Your task to perform on an android device: toggle pop-ups in chrome Image 0: 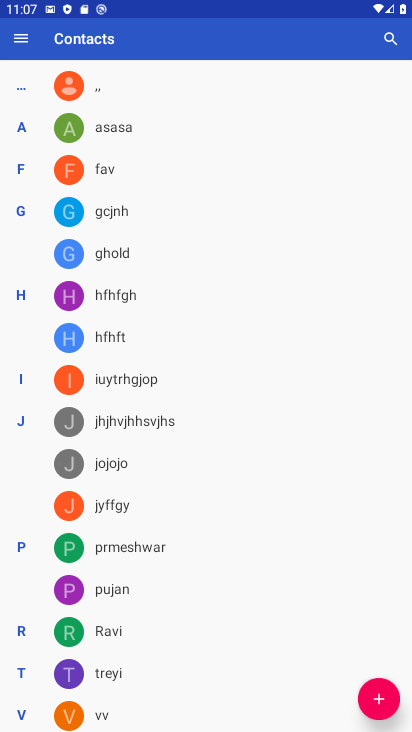
Step 0: press home button
Your task to perform on an android device: toggle pop-ups in chrome Image 1: 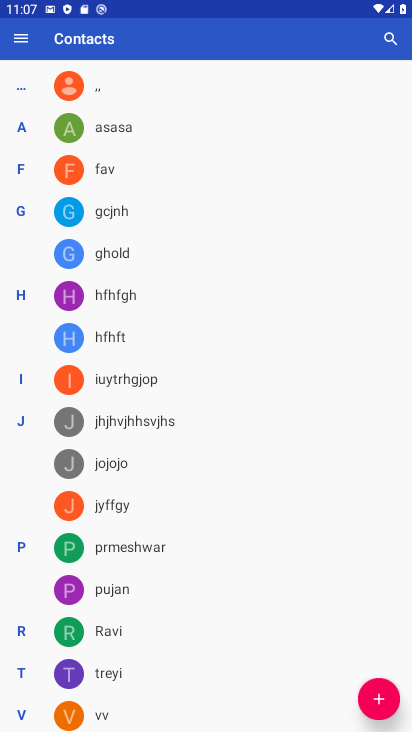
Step 1: press home button
Your task to perform on an android device: toggle pop-ups in chrome Image 2: 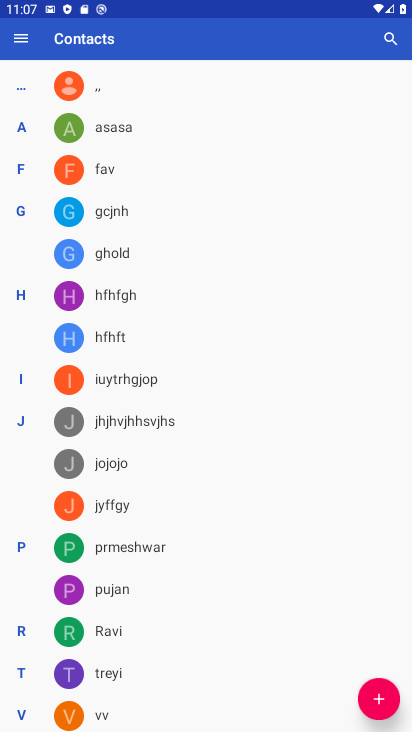
Step 2: click (297, 276)
Your task to perform on an android device: toggle pop-ups in chrome Image 3: 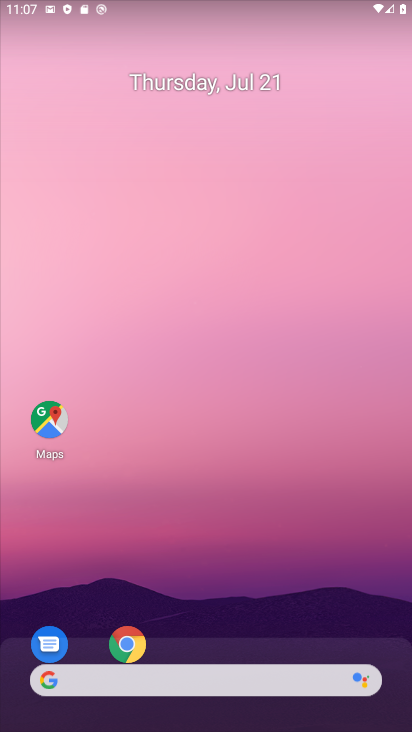
Step 3: drag from (195, 468) to (230, 342)
Your task to perform on an android device: toggle pop-ups in chrome Image 4: 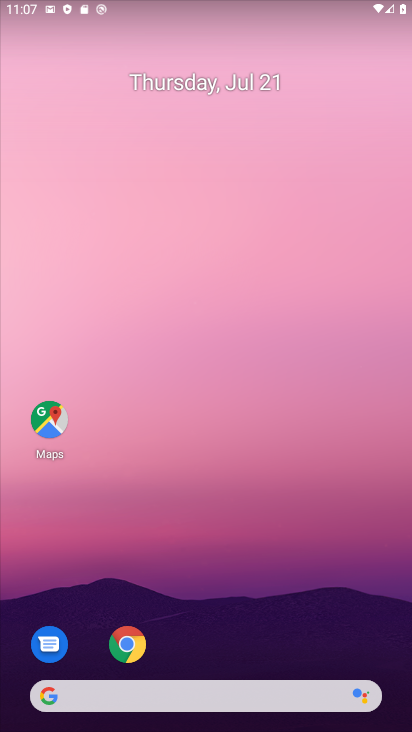
Step 4: press home button
Your task to perform on an android device: toggle pop-ups in chrome Image 5: 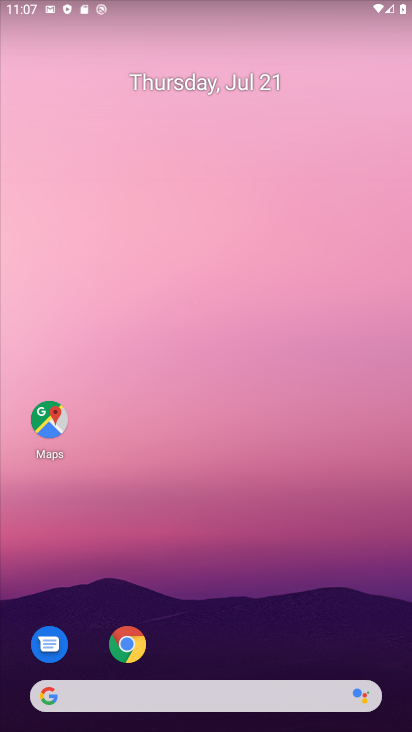
Step 5: drag from (221, 464) to (272, 252)
Your task to perform on an android device: toggle pop-ups in chrome Image 6: 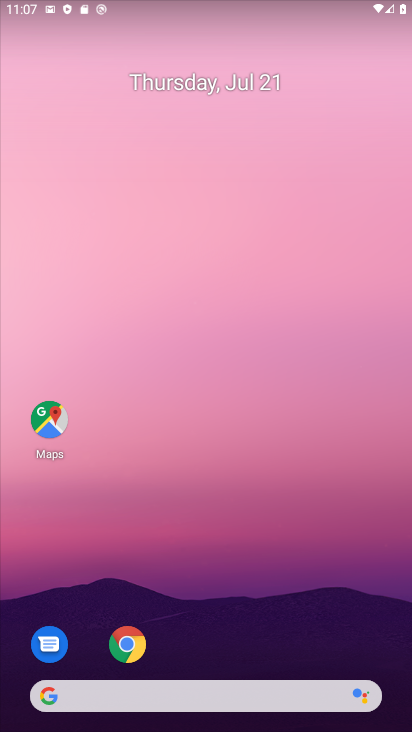
Step 6: click (108, 646)
Your task to perform on an android device: toggle pop-ups in chrome Image 7: 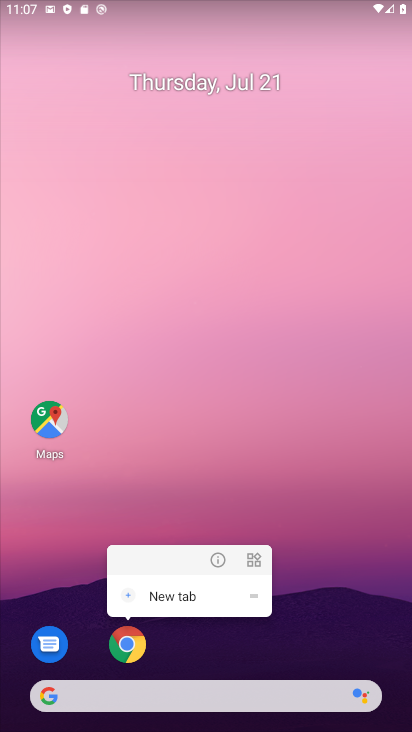
Step 7: click (217, 556)
Your task to perform on an android device: toggle pop-ups in chrome Image 8: 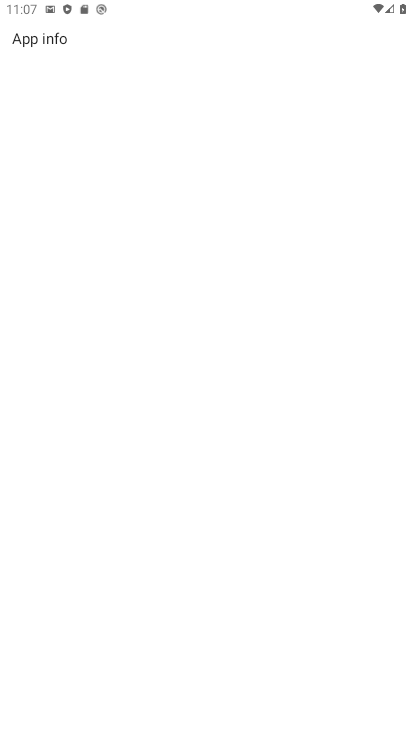
Step 8: drag from (159, 654) to (165, 0)
Your task to perform on an android device: toggle pop-ups in chrome Image 9: 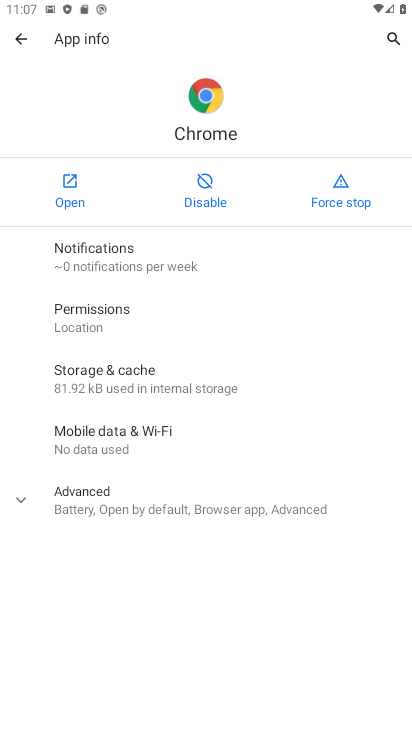
Step 9: click (73, 178)
Your task to perform on an android device: toggle pop-ups in chrome Image 10: 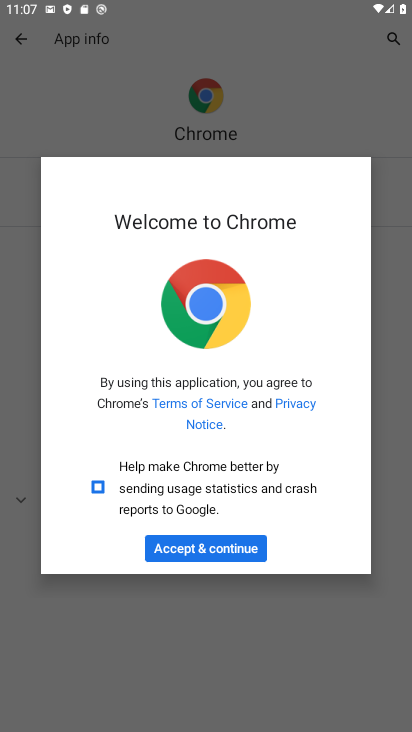
Step 10: drag from (254, 481) to (267, 152)
Your task to perform on an android device: toggle pop-ups in chrome Image 11: 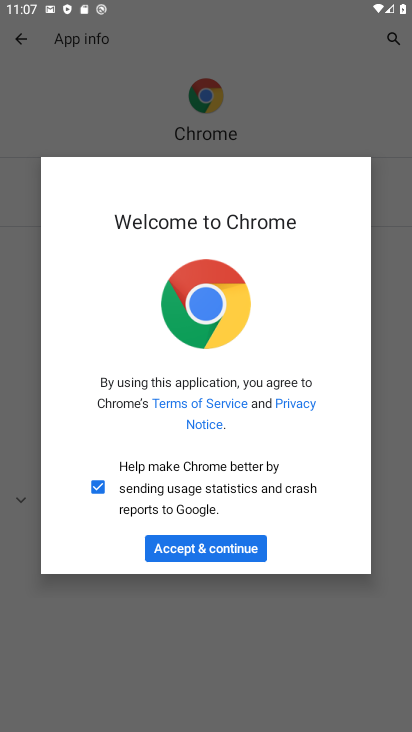
Step 11: click (201, 553)
Your task to perform on an android device: toggle pop-ups in chrome Image 12: 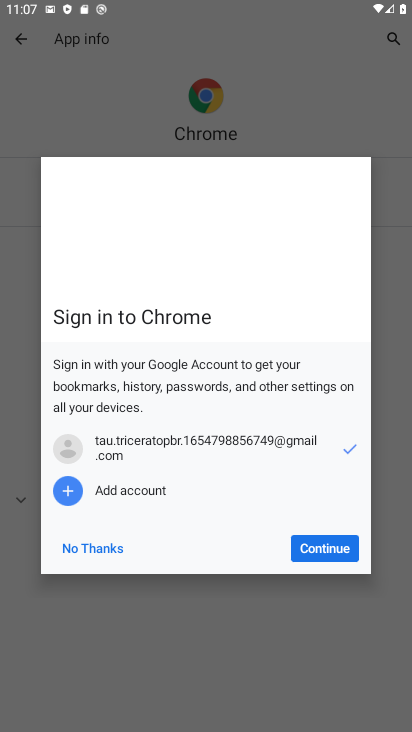
Step 12: drag from (240, 587) to (273, 186)
Your task to perform on an android device: toggle pop-ups in chrome Image 13: 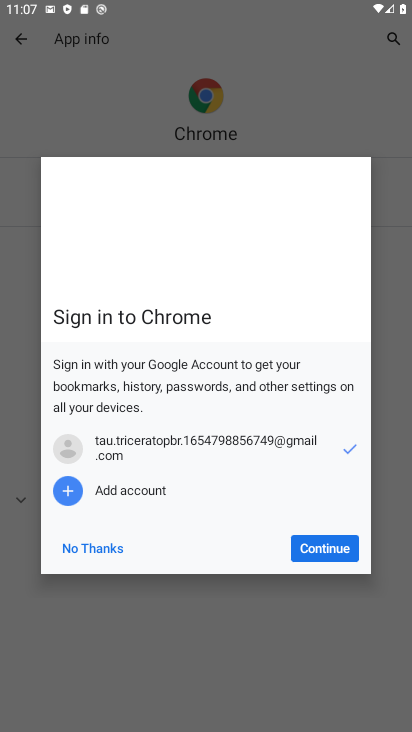
Step 13: click (343, 545)
Your task to perform on an android device: toggle pop-ups in chrome Image 14: 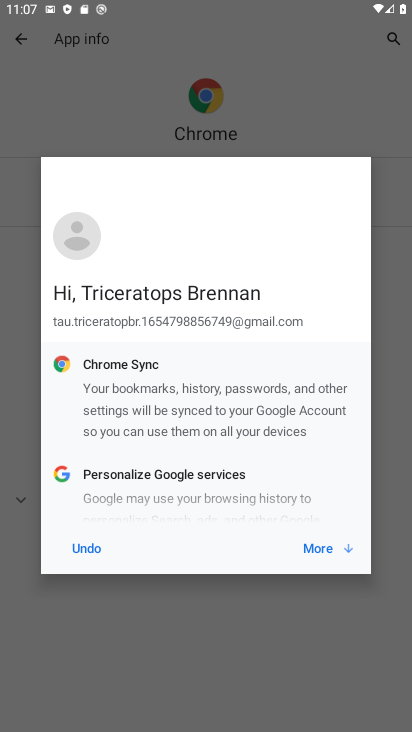
Step 14: click (334, 545)
Your task to perform on an android device: toggle pop-ups in chrome Image 15: 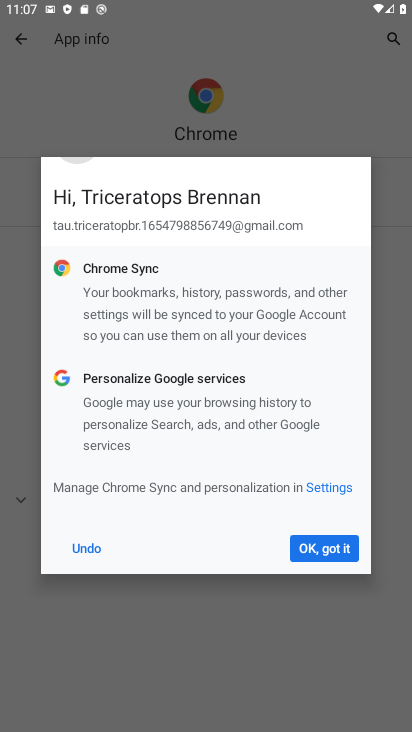
Step 15: click (329, 543)
Your task to perform on an android device: toggle pop-ups in chrome Image 16: 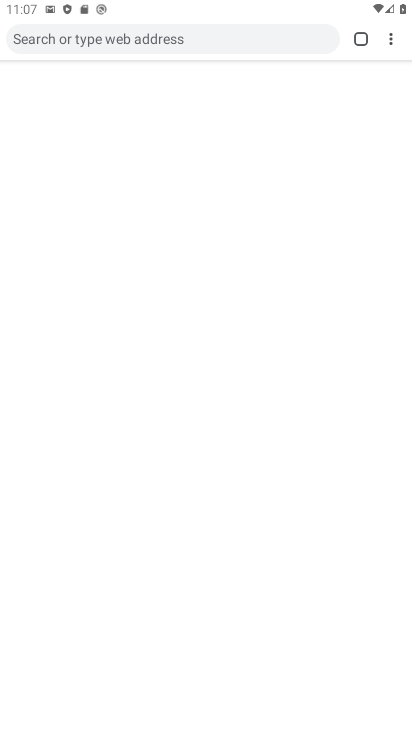
Step 16: drag from (224, 624) to (322, 241)
Your task to perform on an android device: toggle pop-ups in chrome Image 17: 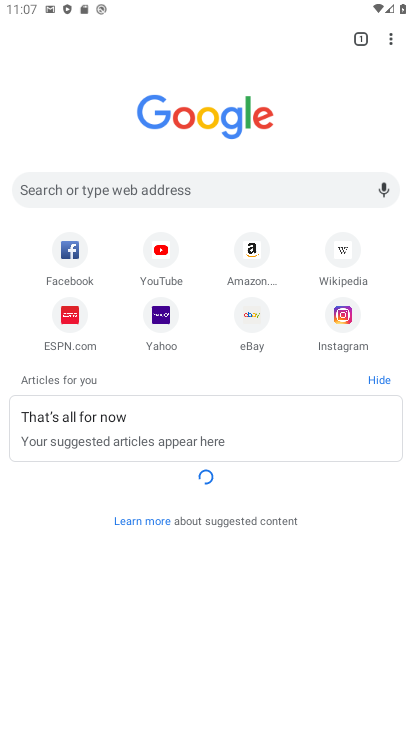
Step 17: drag from (396, 33) to (287, 324)
Your task to perform on an android device: toggle pop-ups in chrome Image 18: 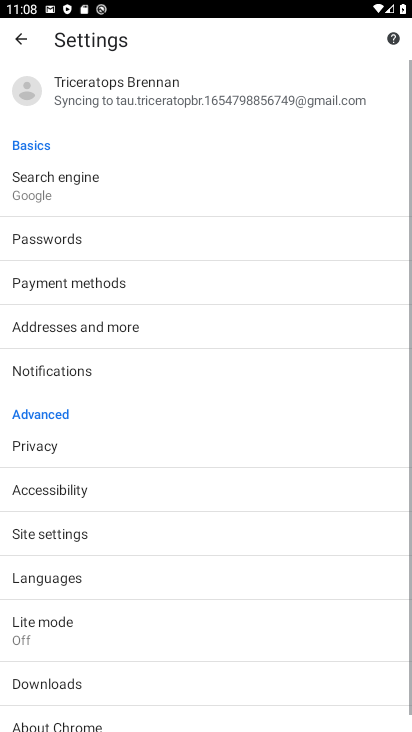
Step 18: drag from (165, 466) to (217, 191)
Your task to perform on an android device: toggle pop-ups in chrome Image 19: 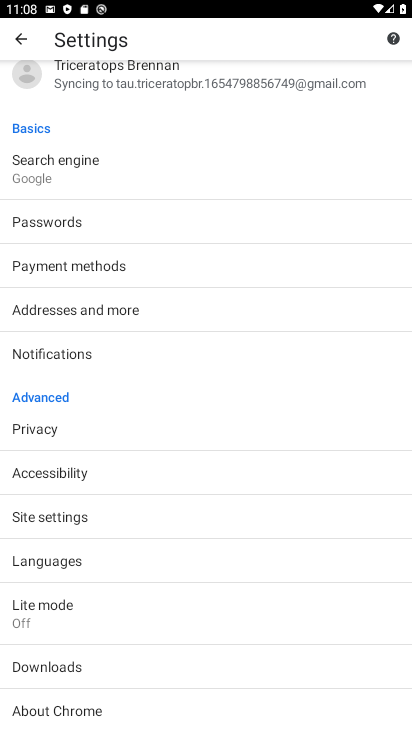
Step 19: click (92, 524)
Your task to perform on an android device: toggle pop-ups in chrome Image 20: 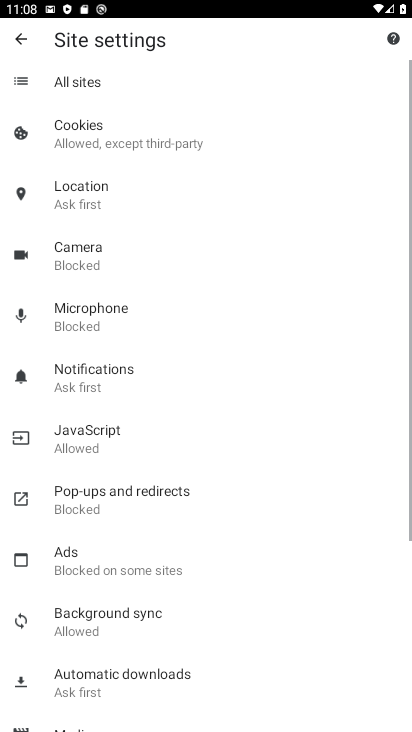
Step 20: drag from (193, 451) to (282, 169)
Your task to perform on an android device: toggle pop-ups in chrome Image 21: 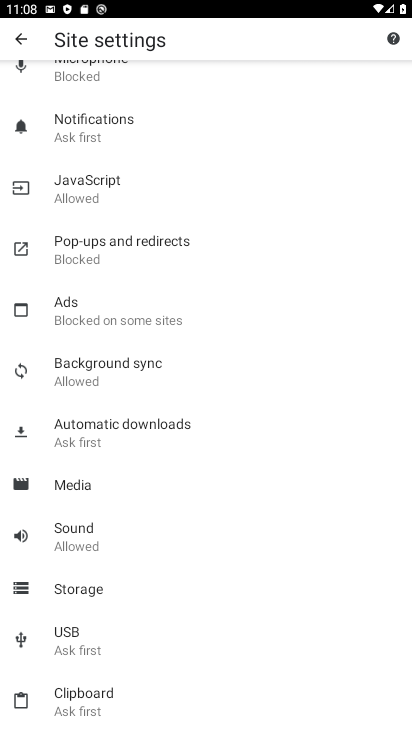
Step 21: click (140, 266)
Your task to perform on an android device: toggle pop-ups in chrome Image 22: 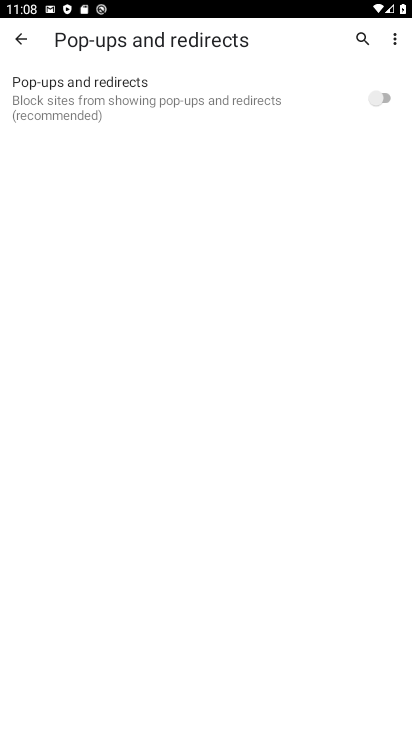
Step 22: drag from (140, 581) to (192, 137)
Your task to perform on an android device: toggle pop-ups in chrome Image 23: 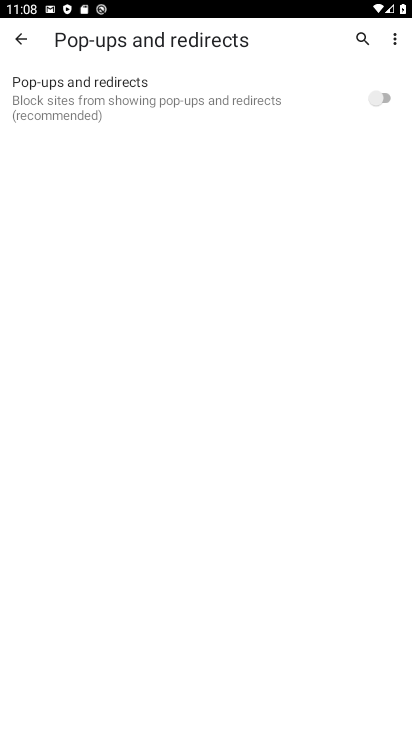
Step 23: click (337, 100)
Your task to perform on an android device: toggle pop-ups in chrome Image 24: 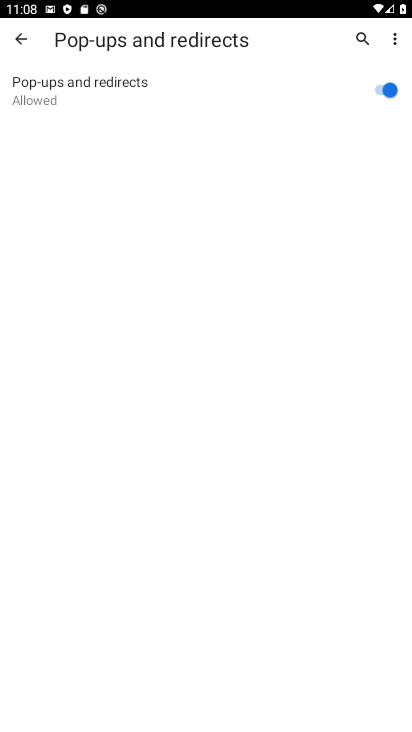
Step 24: task complete